Your task to perform on an android device: delete a single message in the gmail app Image 0: 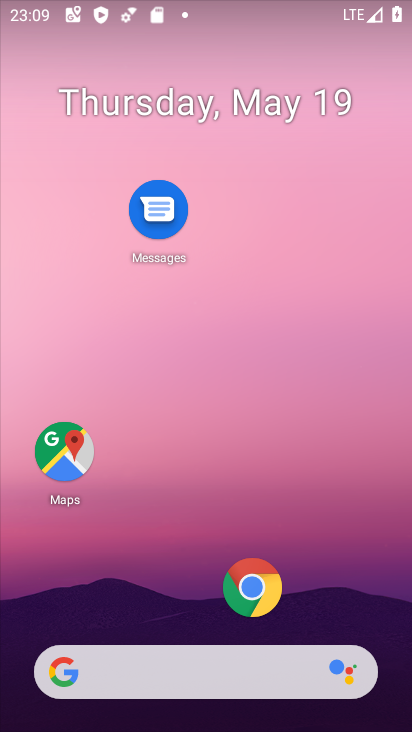
Step 0: drag from (88, 632) to (209, 105)
Your task to perform on an android device: delete a single message in the gmail app Image 1: 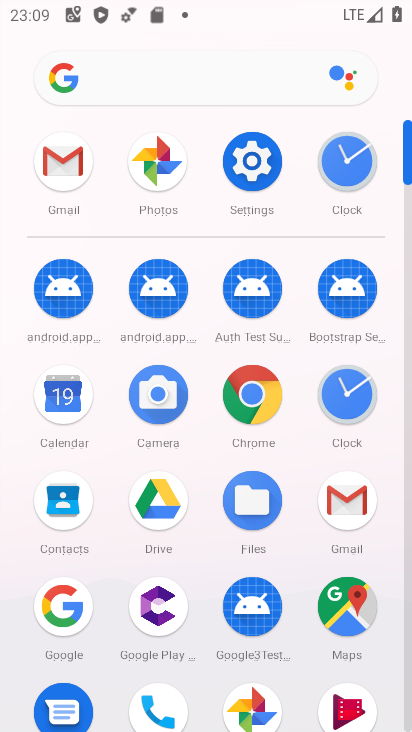
Step 1: click (323, 517)
Your task to perform on an android device: delete a single message in the gmail app Image 2: 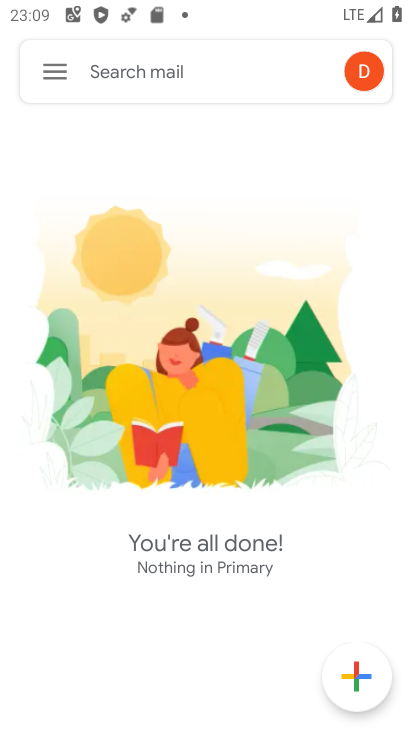
Step 2: task complete